Your task to perform on an android device: Search for the best rated tool bag on Lowe's. Image 0: 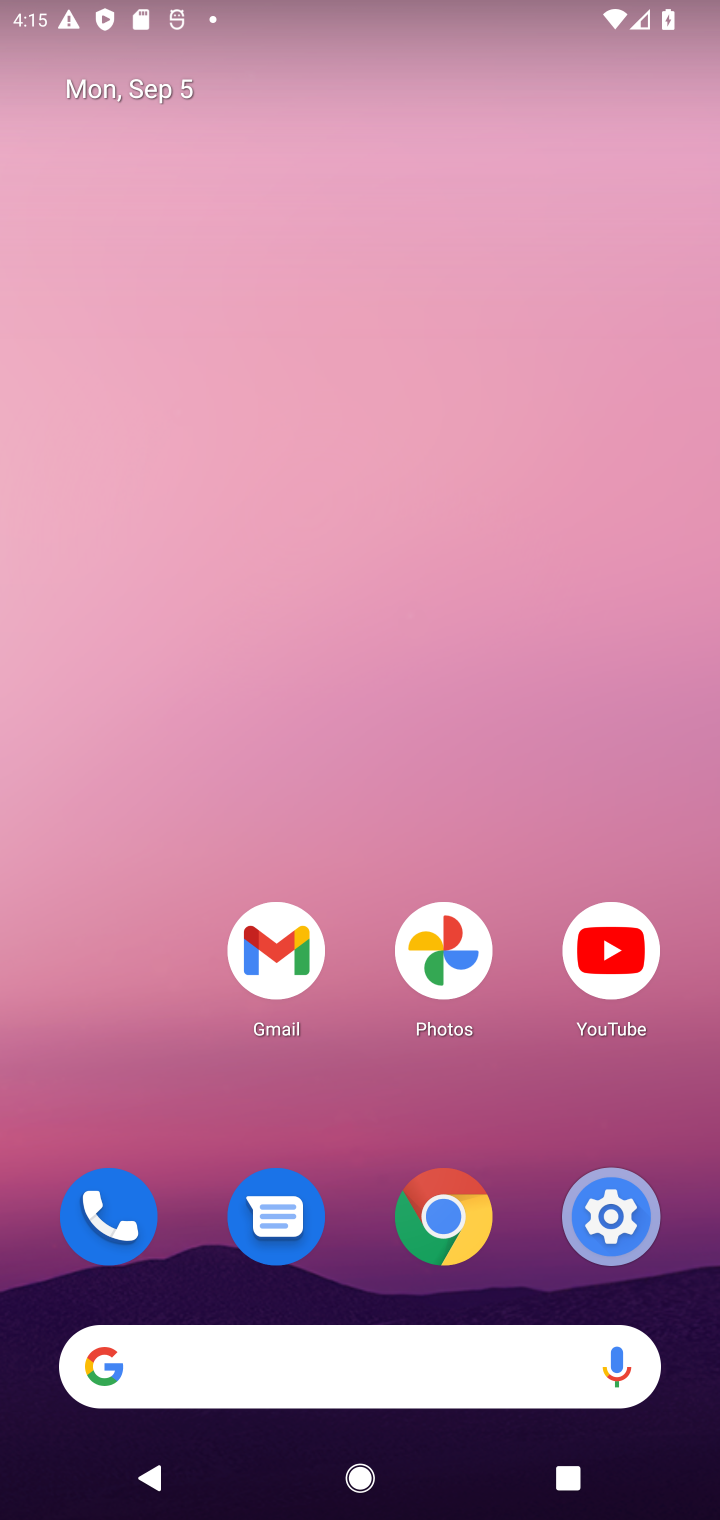
Step 0: press home button
Your task to perform on an android device: Search for the best rated tool bag on Lowe's. Image 1: 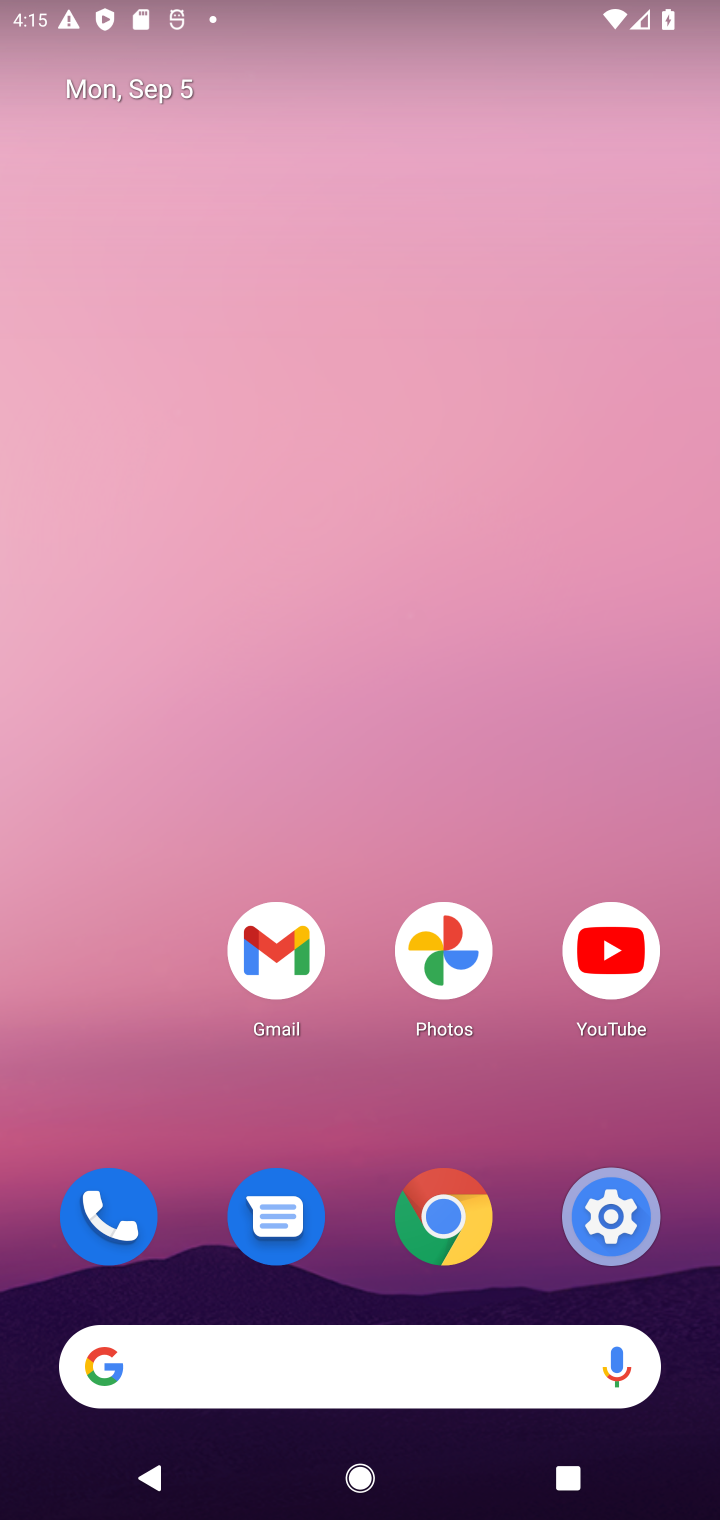
Step 1: click (107, 1379)
Your task to perform on an android device: Search for the best rated tool bag on Lowe's. Image 2: 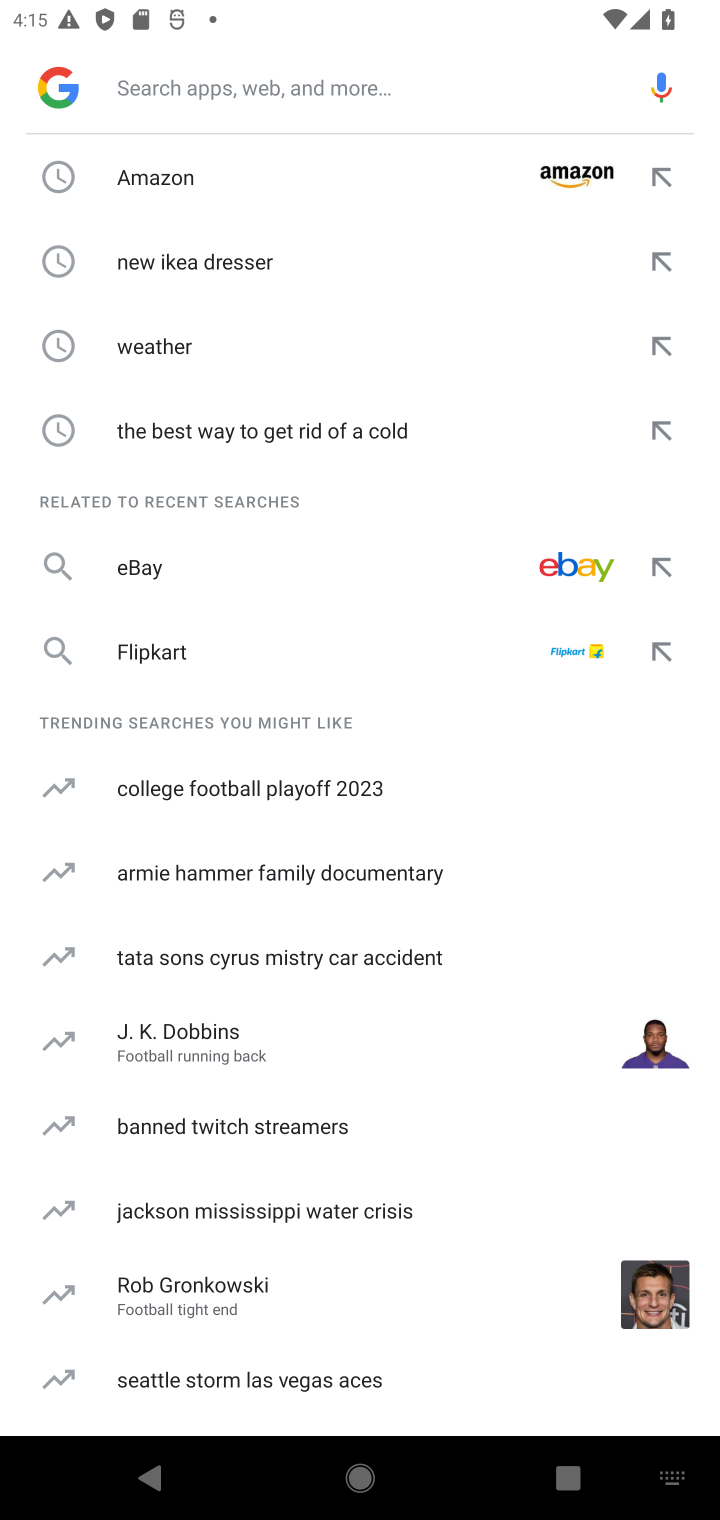
Step 2: type "Lowe's"
Your task to perform on an android device: Search for the best rated tool bag on Lowe's. Image 3: 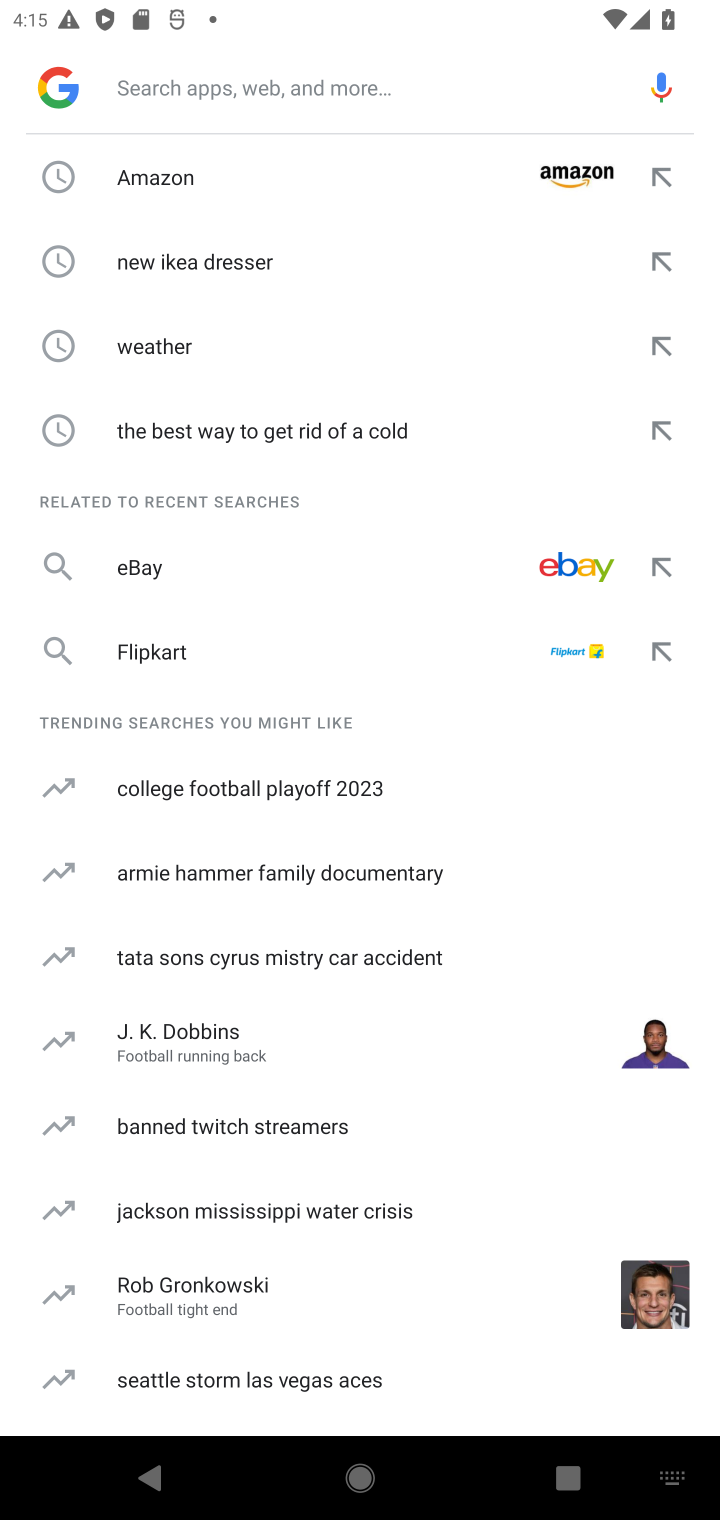
Step 3: click (171, 104)
Your task to perform on an android device: Search for the best rated tool bag on Lowe's. Image 4: 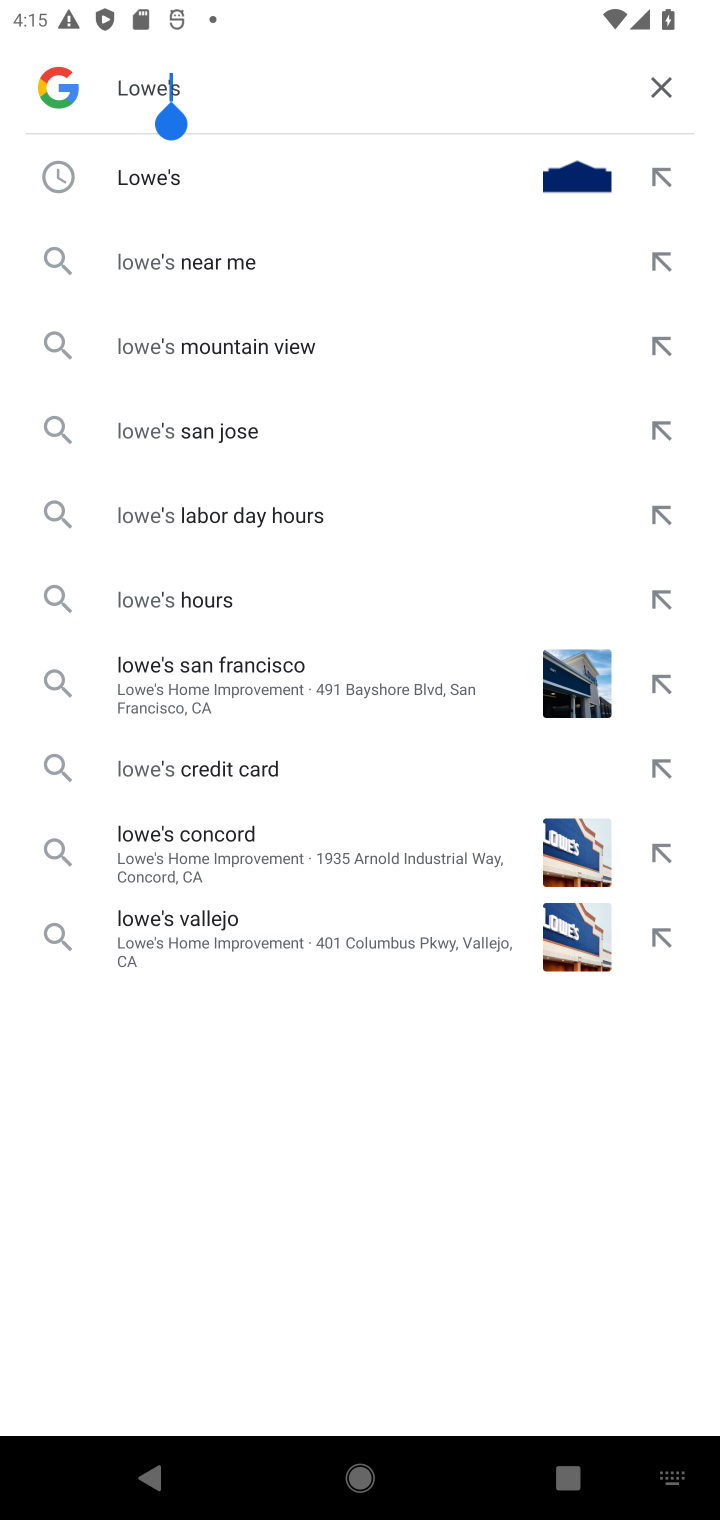
Step 4: press enter
Your task to perform on an android device: Search for the best rated tool bag on Lowe's. Image 5: 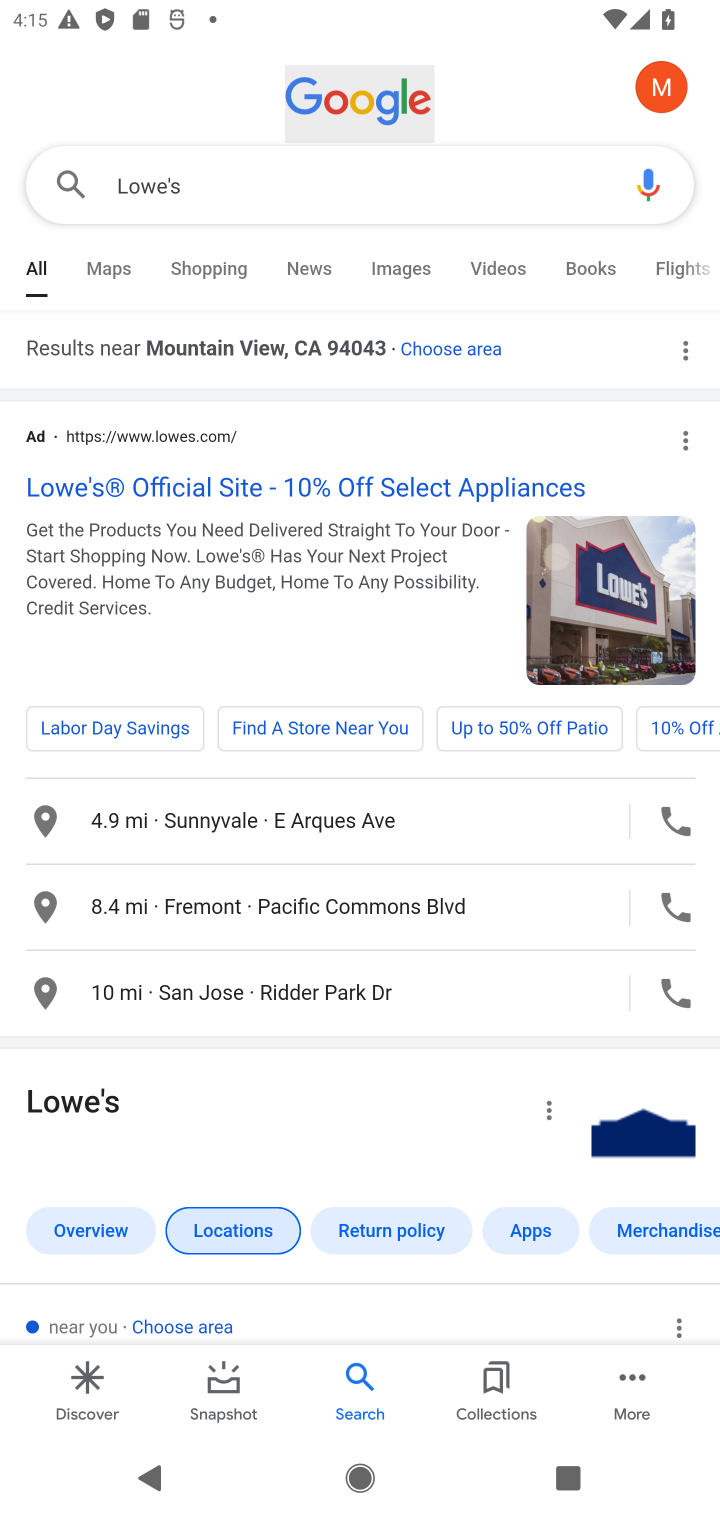
Step 5: click (136, 454)
Your task to perform on an android device: Search for the best rated tool bag on Lowe's. Image 6: 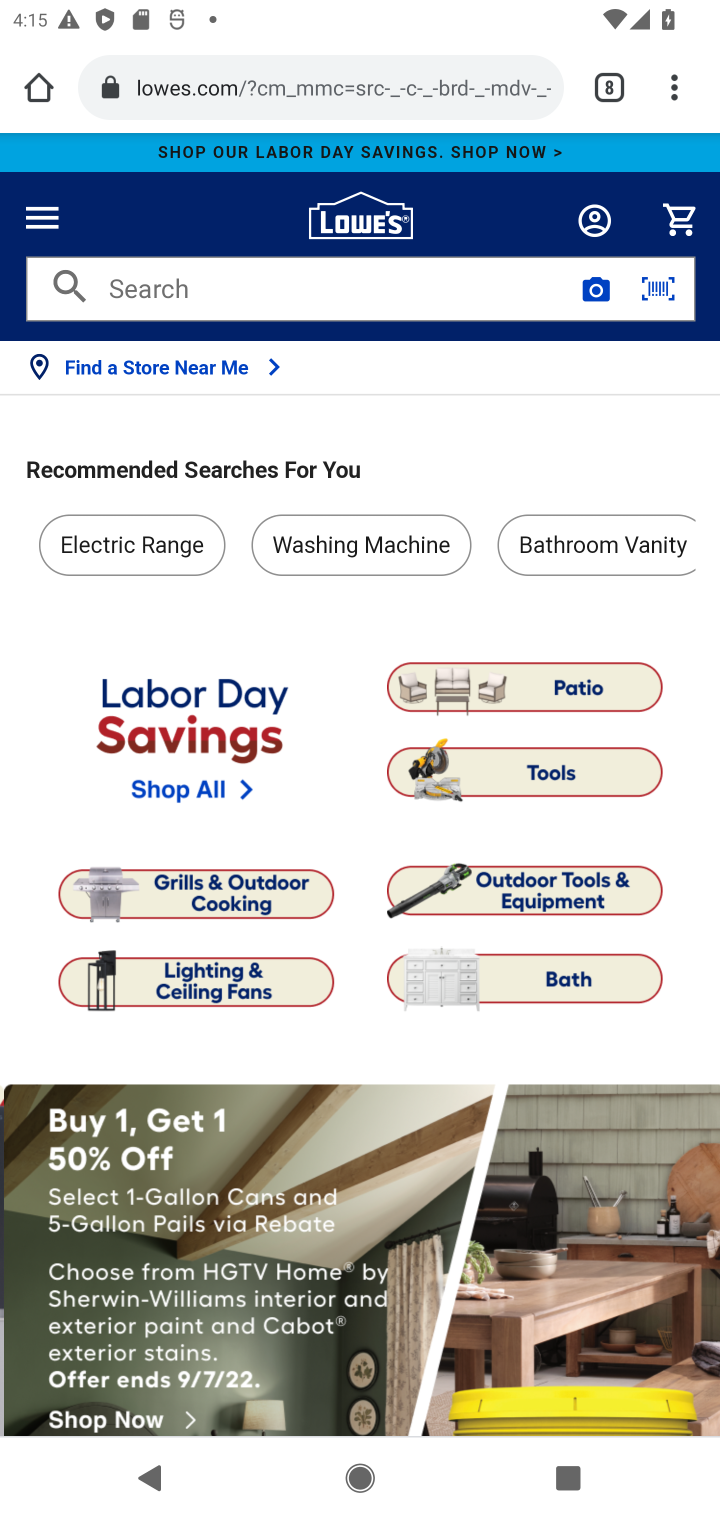
Step 6: click (242, 286)
Your task to perform on an android device: Search for the best rated tool bag on Lowe's. Image 7: 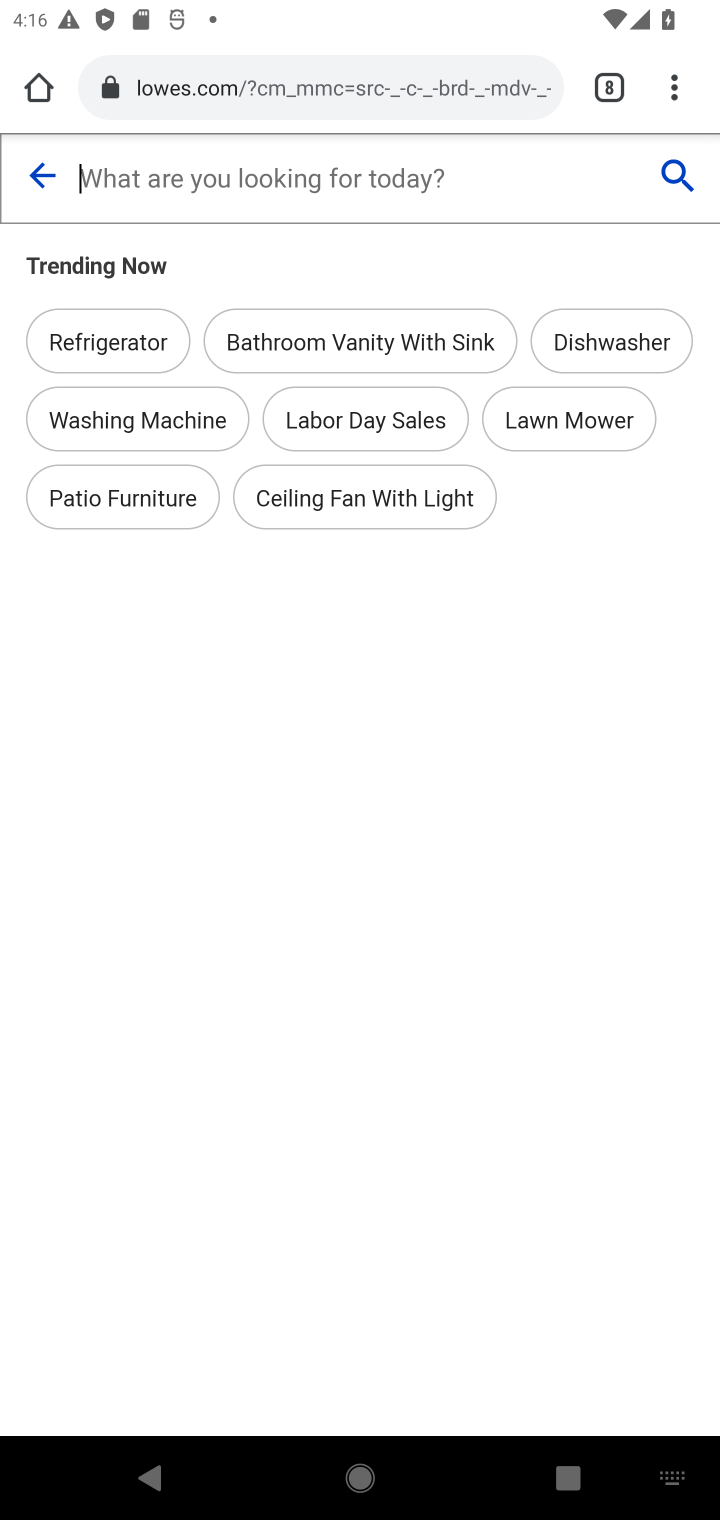
Step 7: type "tool bag"
Your task to perform on an android device: Search for the best rated tool bag on Lowe's. Image 8: 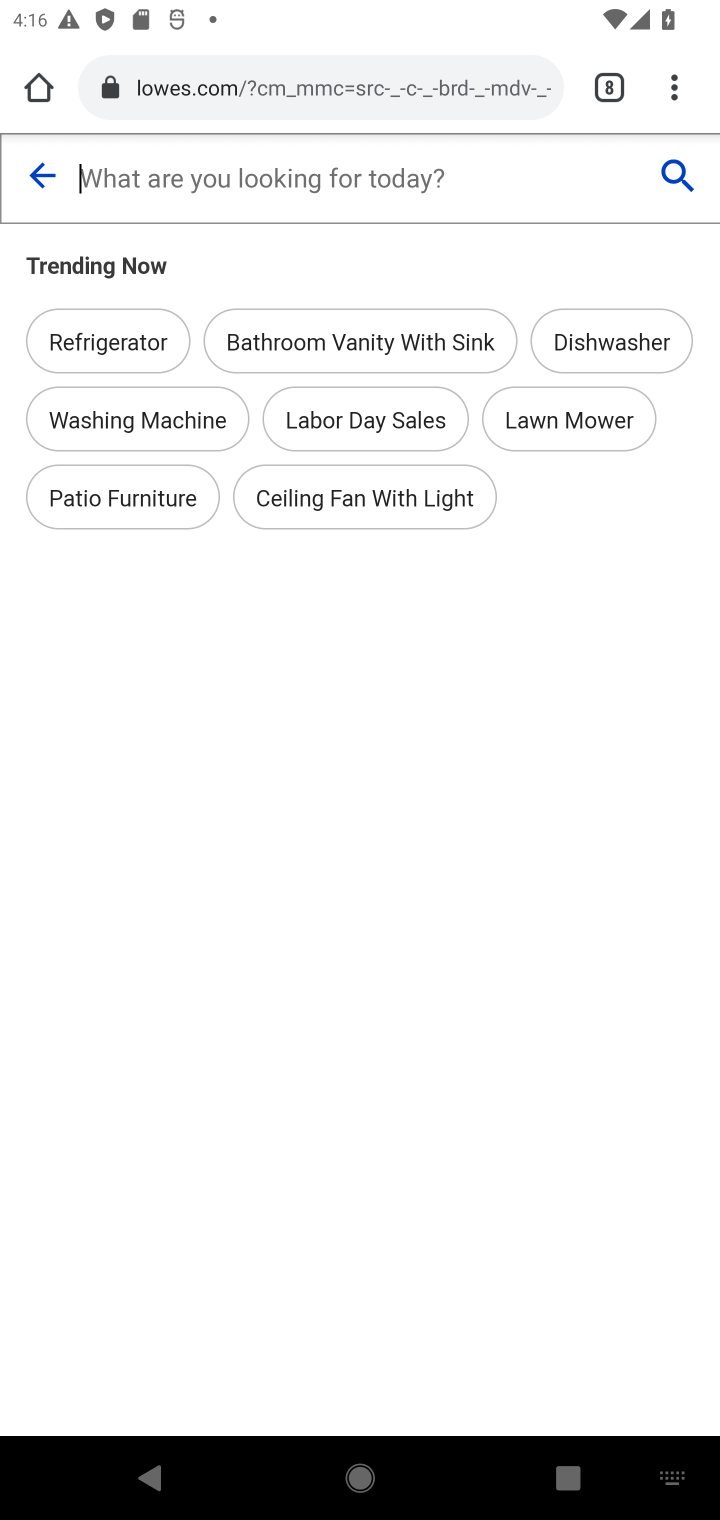
Step 8: click (232, 175)
Your task to perform on an android device: Search for the best rated tool bag on Lowe's. Image 9: 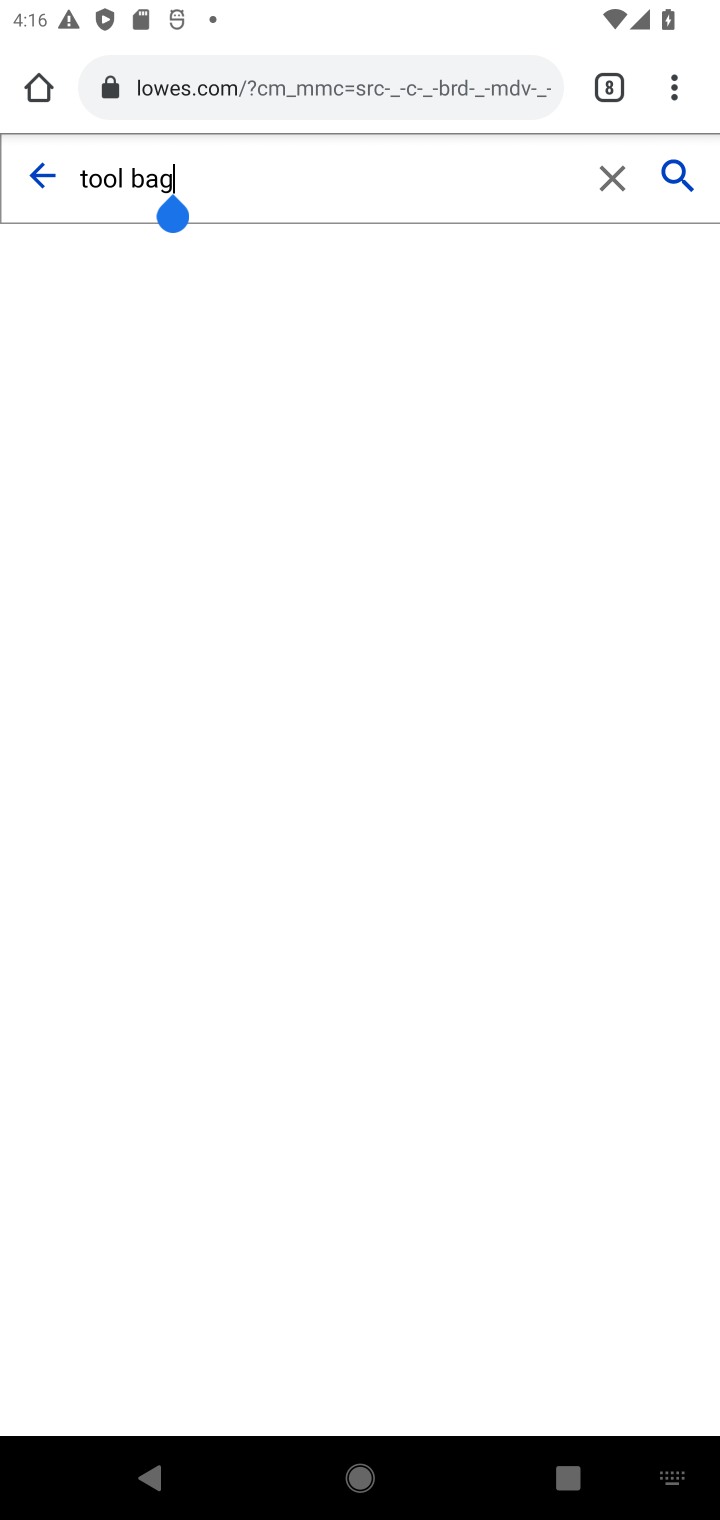
Step 9: press enter
Your task to perform on an android device: Search for the best rated tool bag on Lowe's. Image 10: 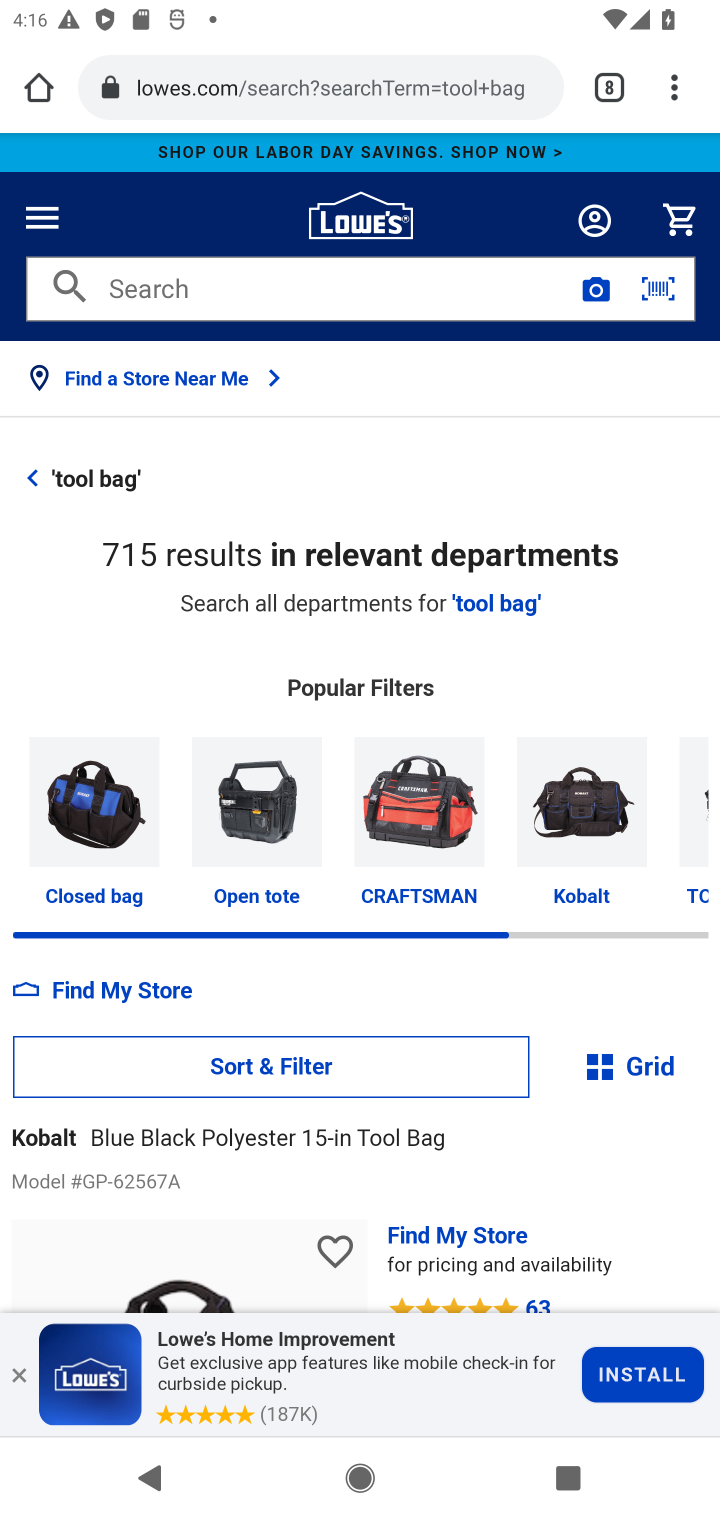
Step 10: click (308, 1059)
Your task to perform on an android device: Search for the best rated tool bag on Lowe's. Image 11: 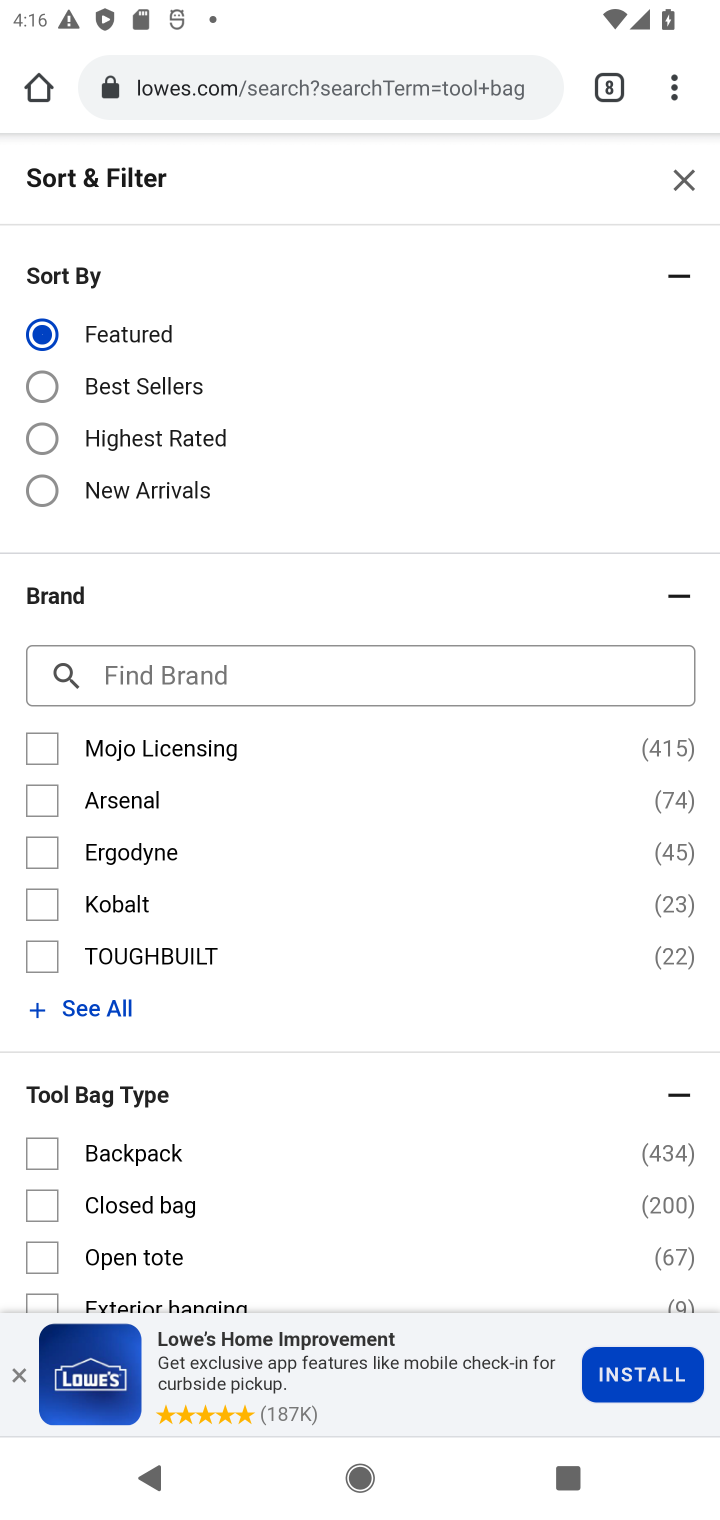
Step 11: drag from (307, 596) to (241, 61)
Your task to perform on an android device: Search for the best rated tool bag on Lowe's. Image 12: 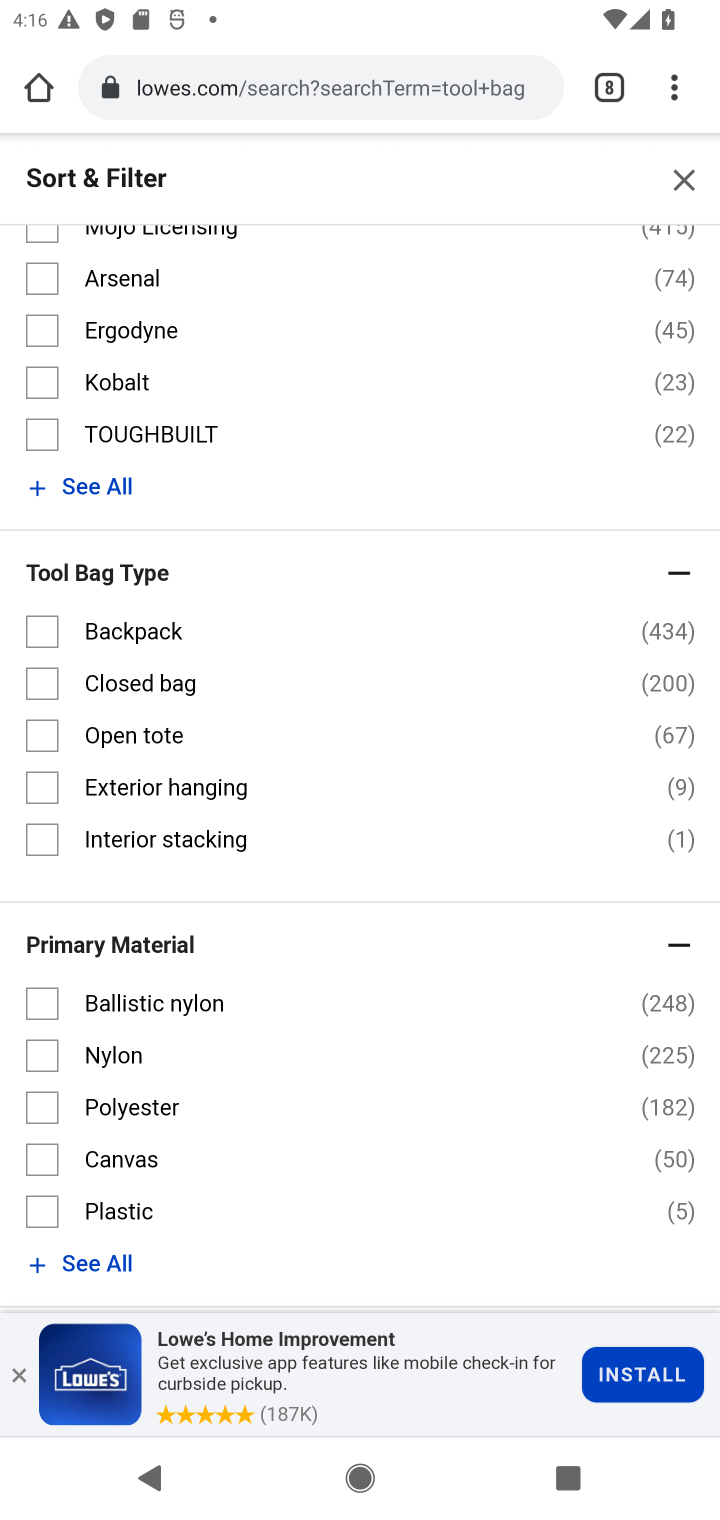
Step 12: drag from (405, 950) to (298, 79)
Your task to perform on an android device: Search for the best rated tool bag on Lowe's. Image 13: 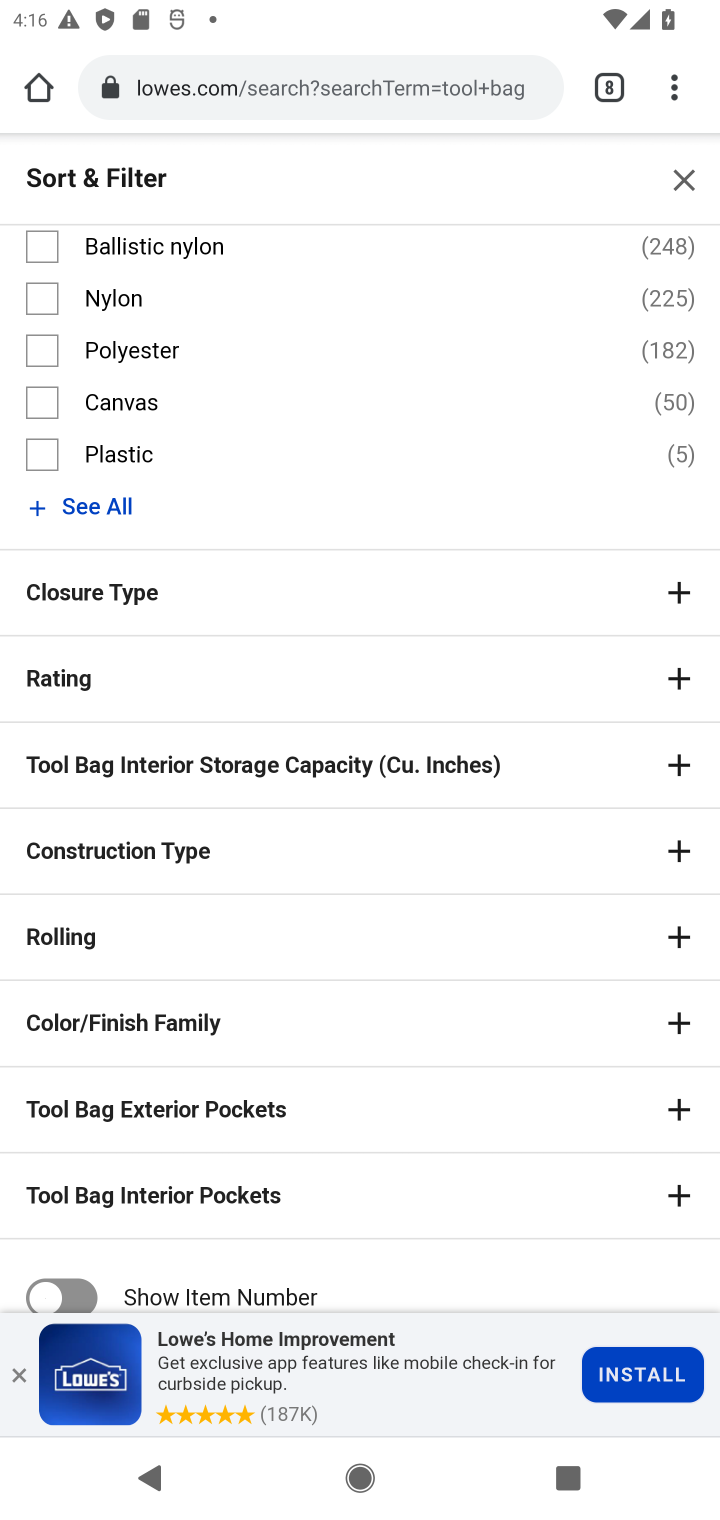
Step 13: drag from (219, 613) to (167, 11)
Your task to perform on an android device: Search for the best rated tool bag on Lowe's. Image 14: 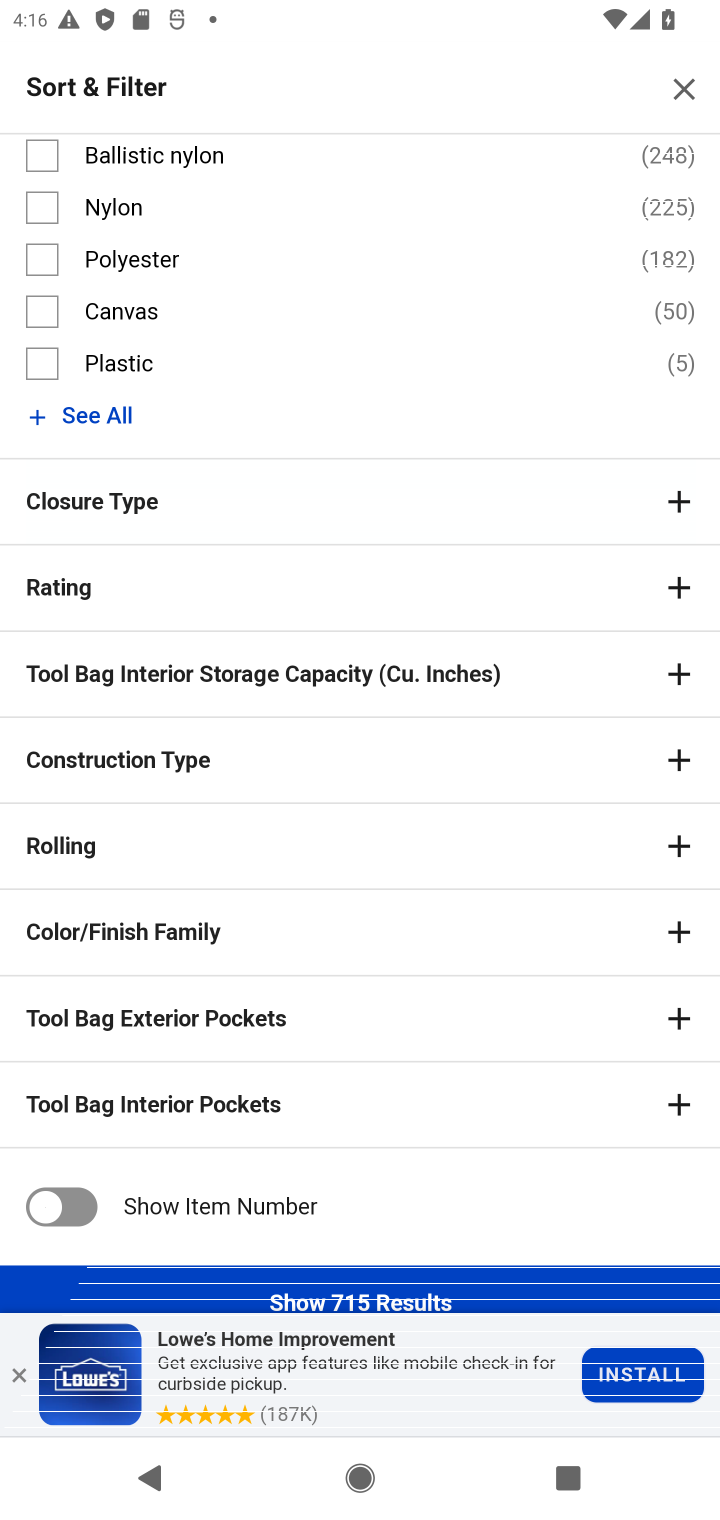
Step 14: drag from (471, 1202) to (416, 293)
Your task to perform on an android device: Search for the best rated tool bag on Lowe's. Image 15: 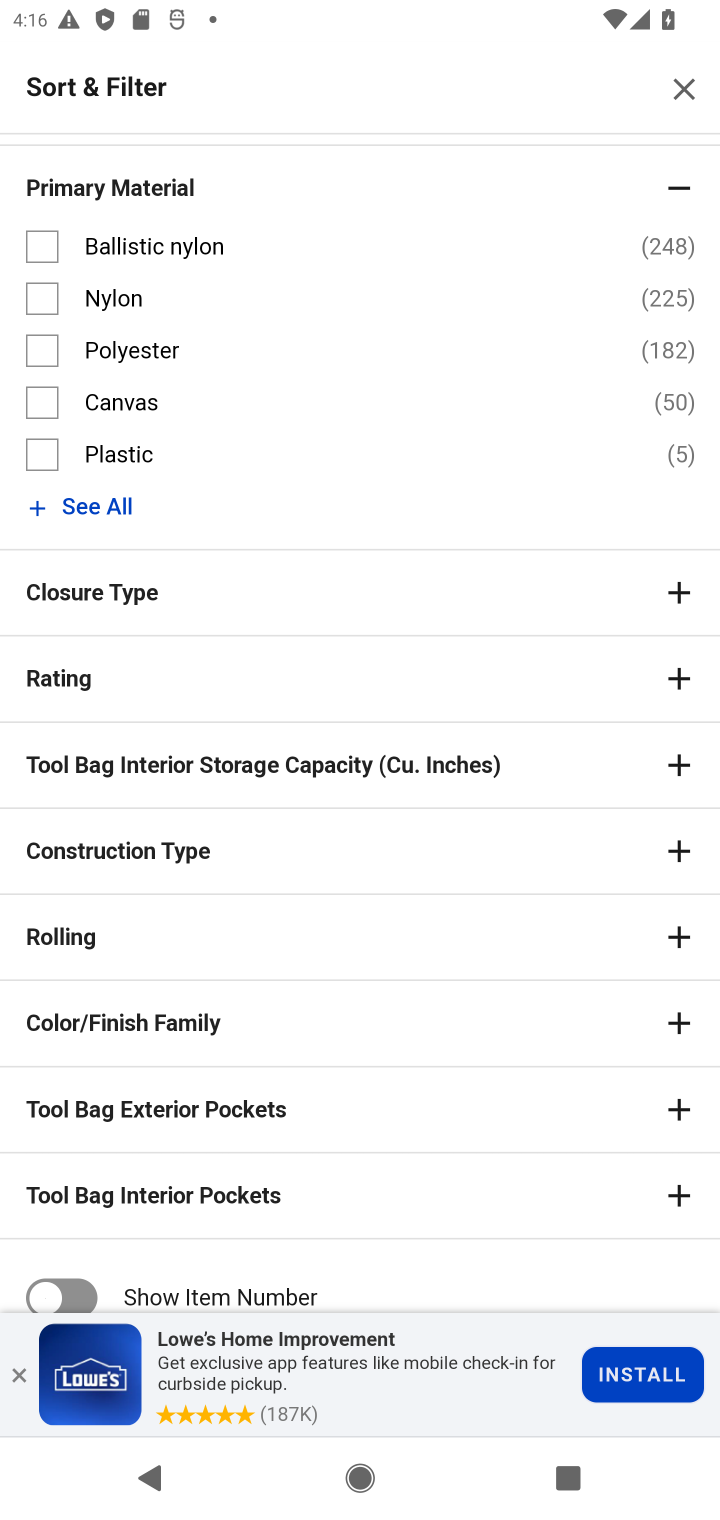
Step 15: drag from (260, 522) to (306, 0)
Your task to perform on an android device: Search for the best rated tool bag on Lowe's. Image 16: 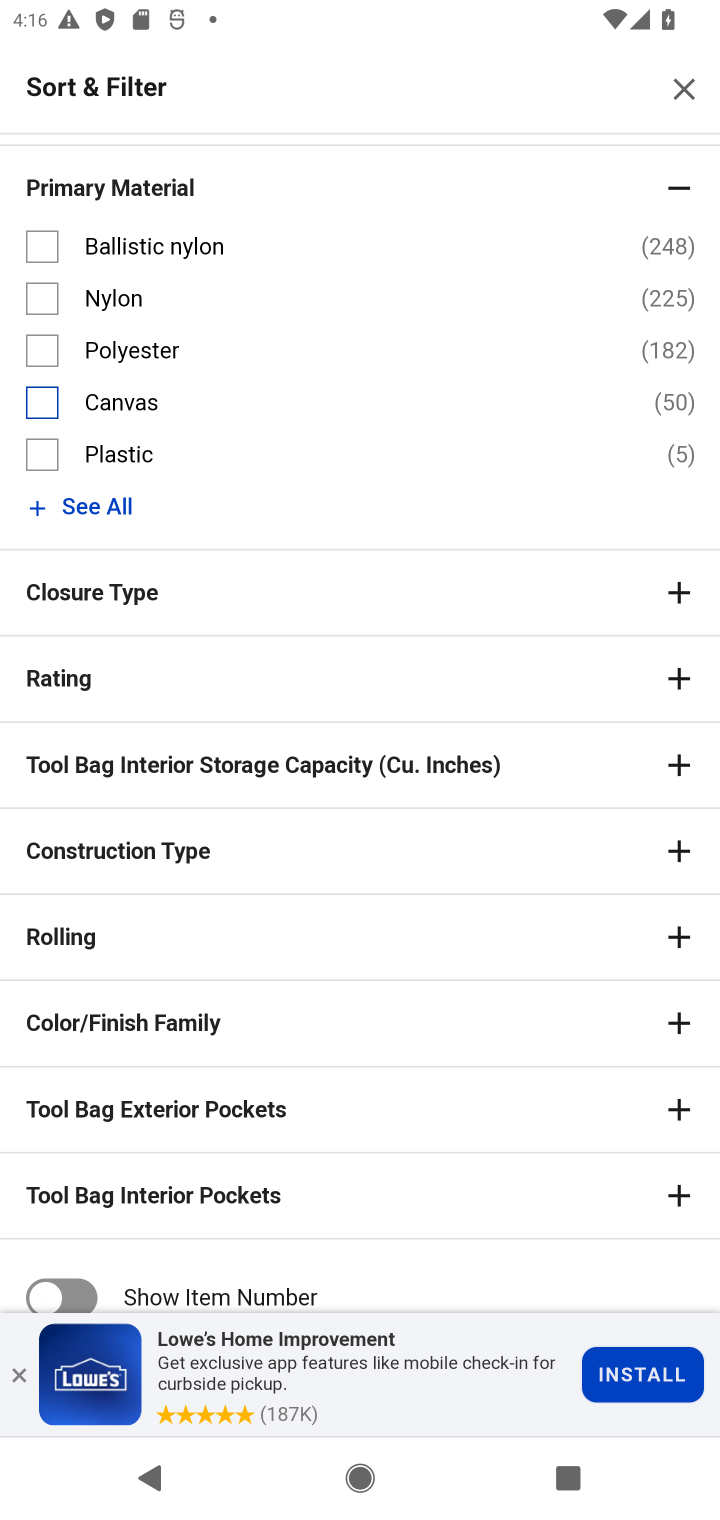
Step 16: drag from (559, 1260) to (503, 60)
Your task to perform on an android device: Search for the best rated tool bag on Lowe's. Image 17: 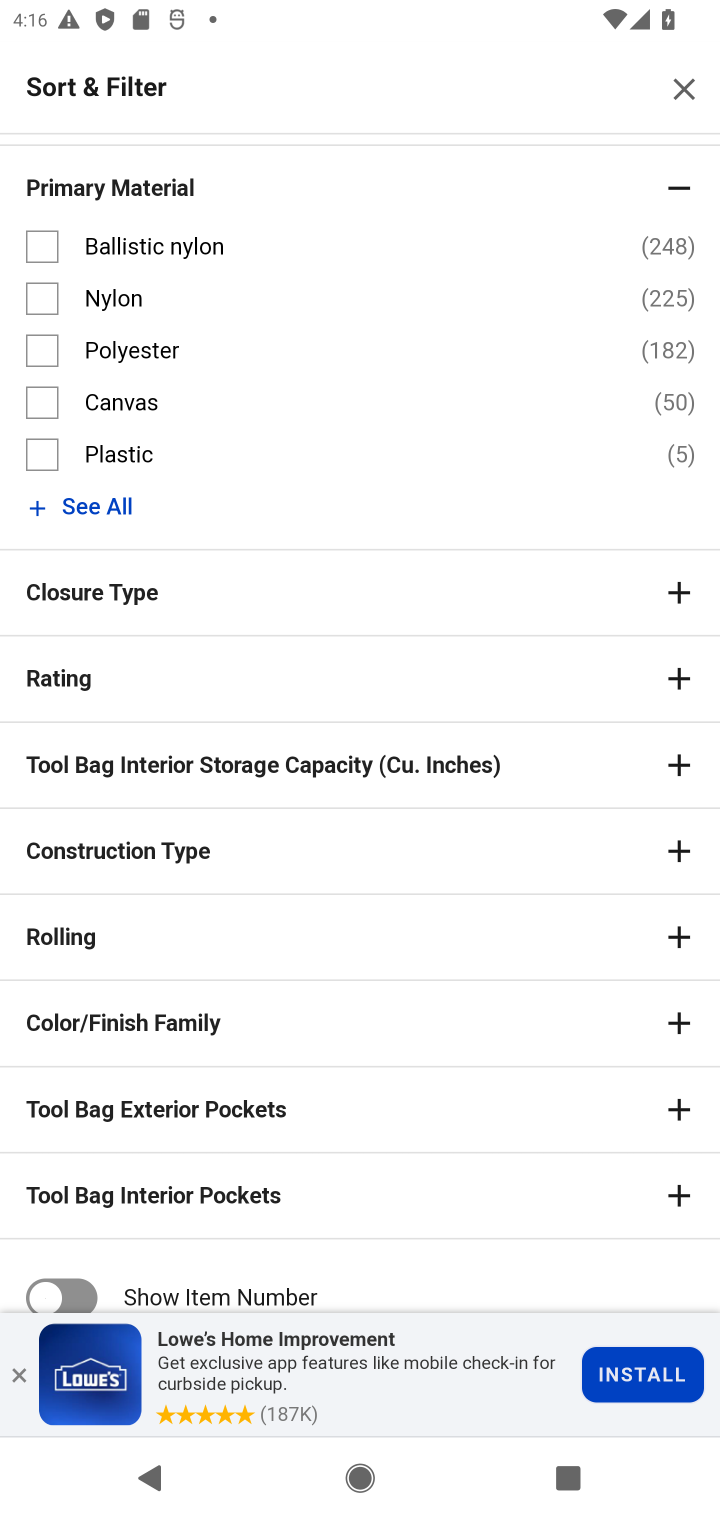
Step 17: drag from (356, 575) to (339, 168)
Your task to perform on an android device: Search for the best rated tool bag on Lowe's. Image 18: 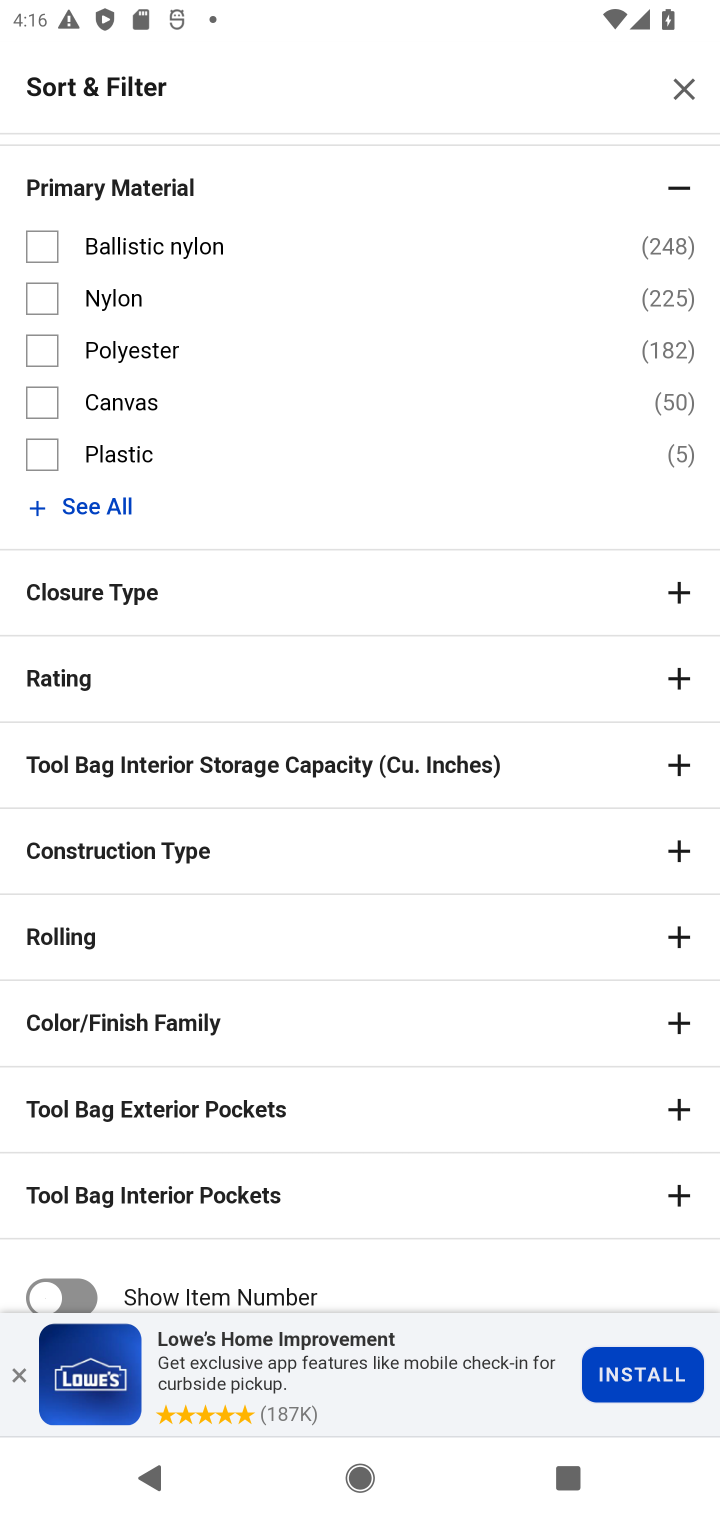
Step 18: drag from (358, 839) to (451, 13)
Your task to perform on an android device: Search for the best rated tool bag on Lowe's. Image 19: 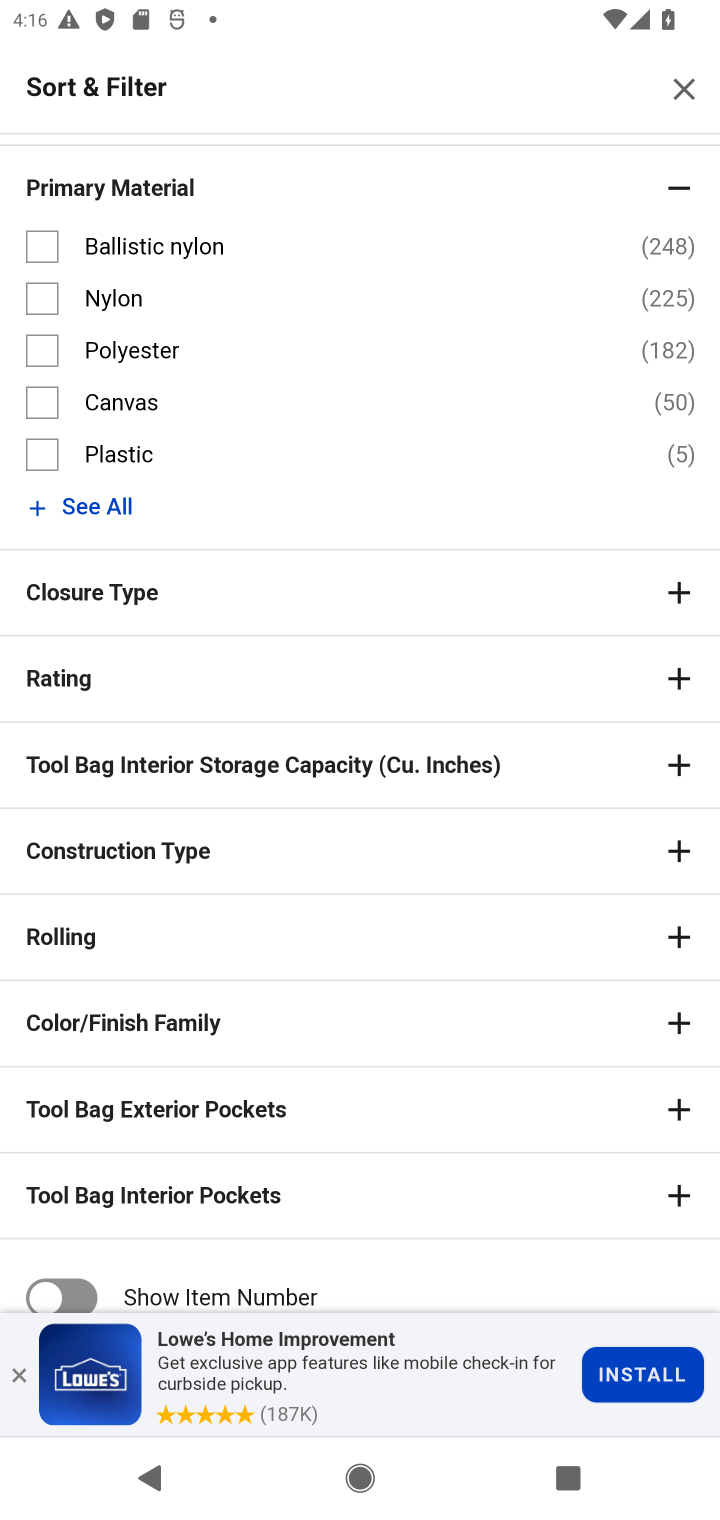
Step 19: click (75, 677)
Your task to perform on an android device: Search for the best rated tool bag on Lowe's. Image 20: 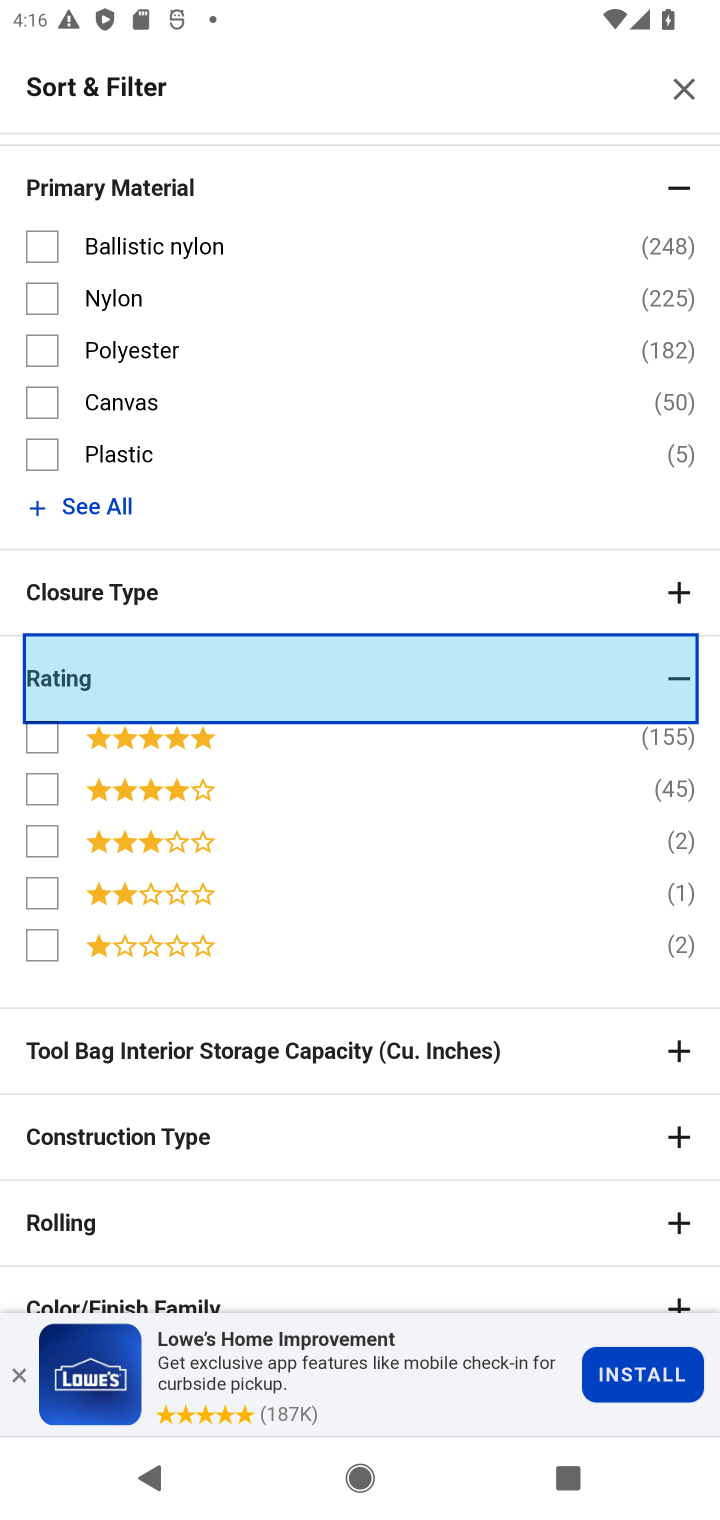
Step 20: click (41, 737)
Your task to perform on an android device: Search for the best rated tool bag on Lowe's. Image 21: 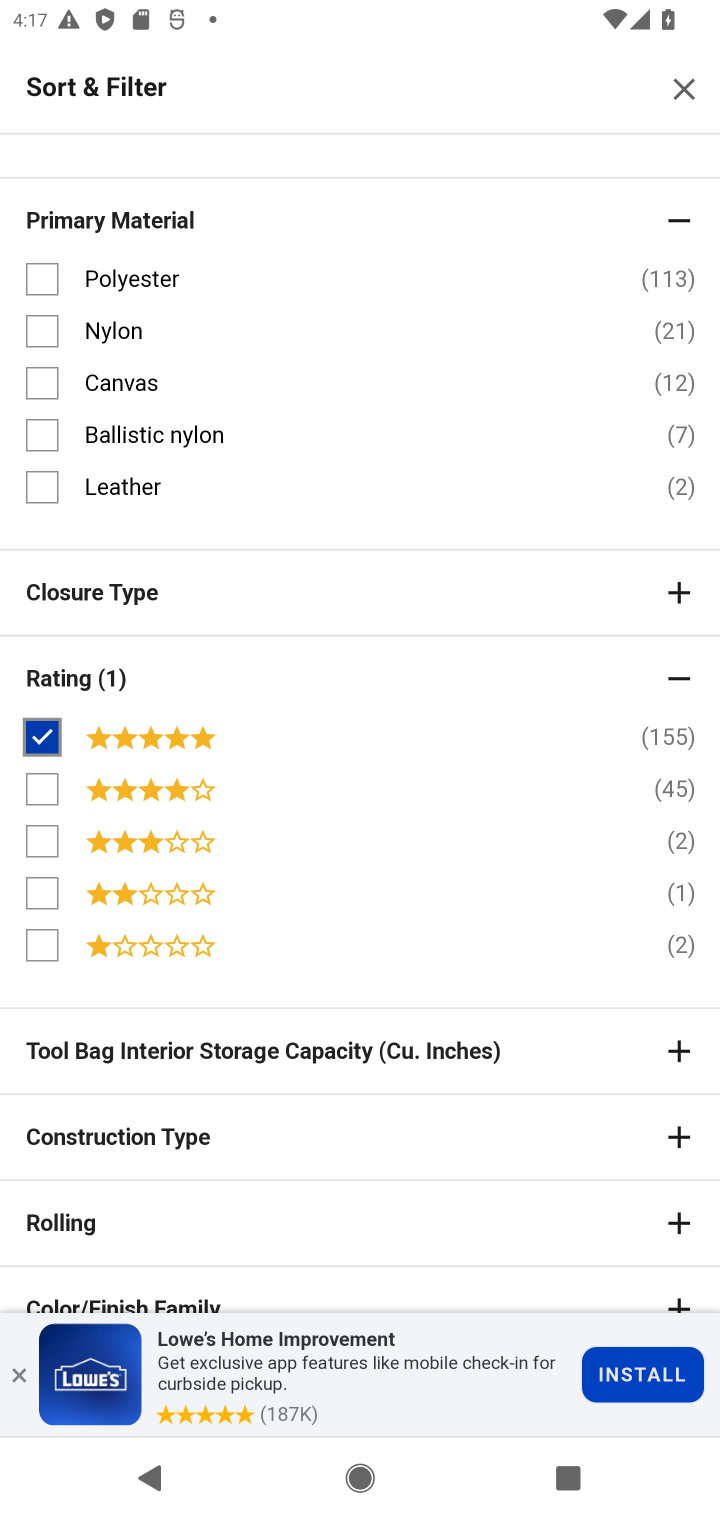
Step 21: drag from (288, 621) to (342, 122)
Your task to perform on an android device: Search for the best rated tool bag on Lowe's. Image 22: 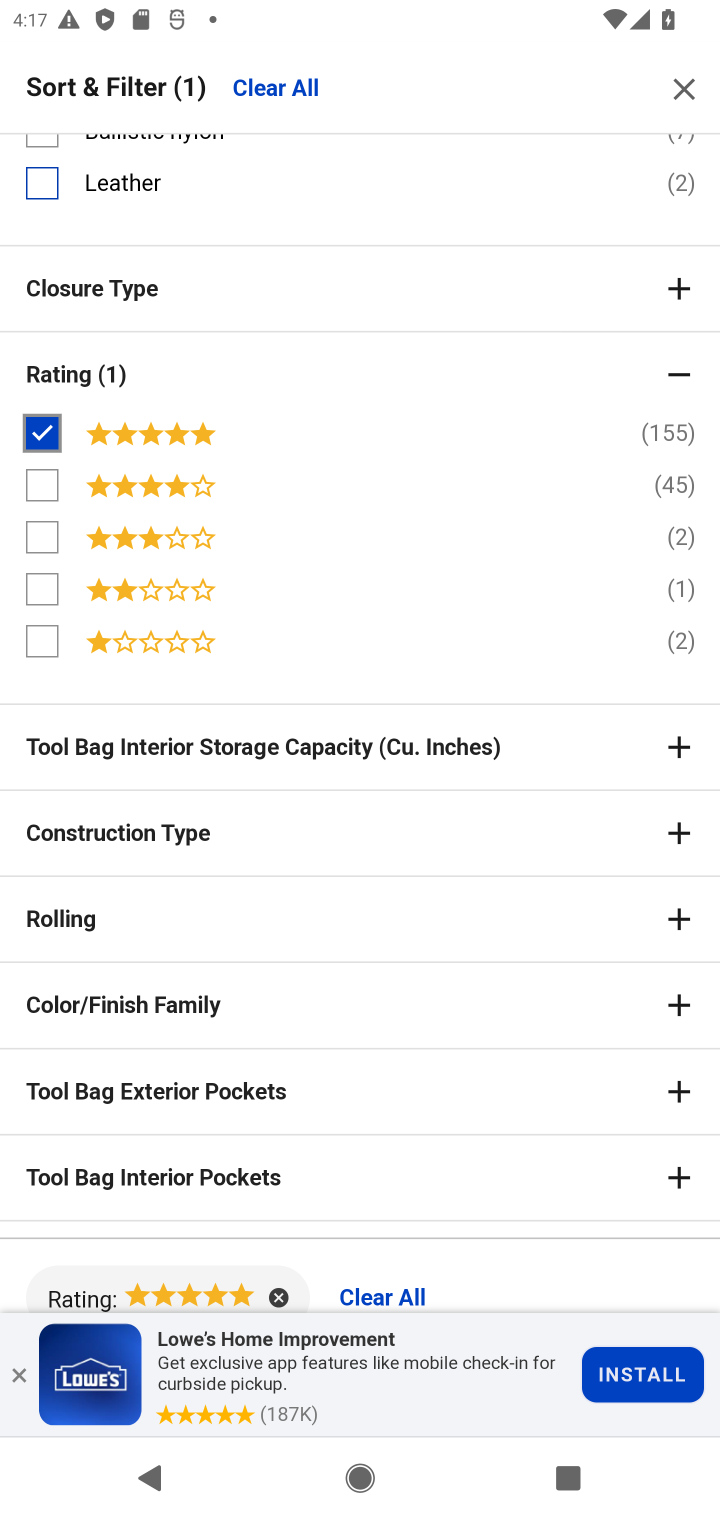
Step 22: click (14, 1379)
Your task to perform on an android device: Search for the best rated tool bag on Lowe's. Image 23: 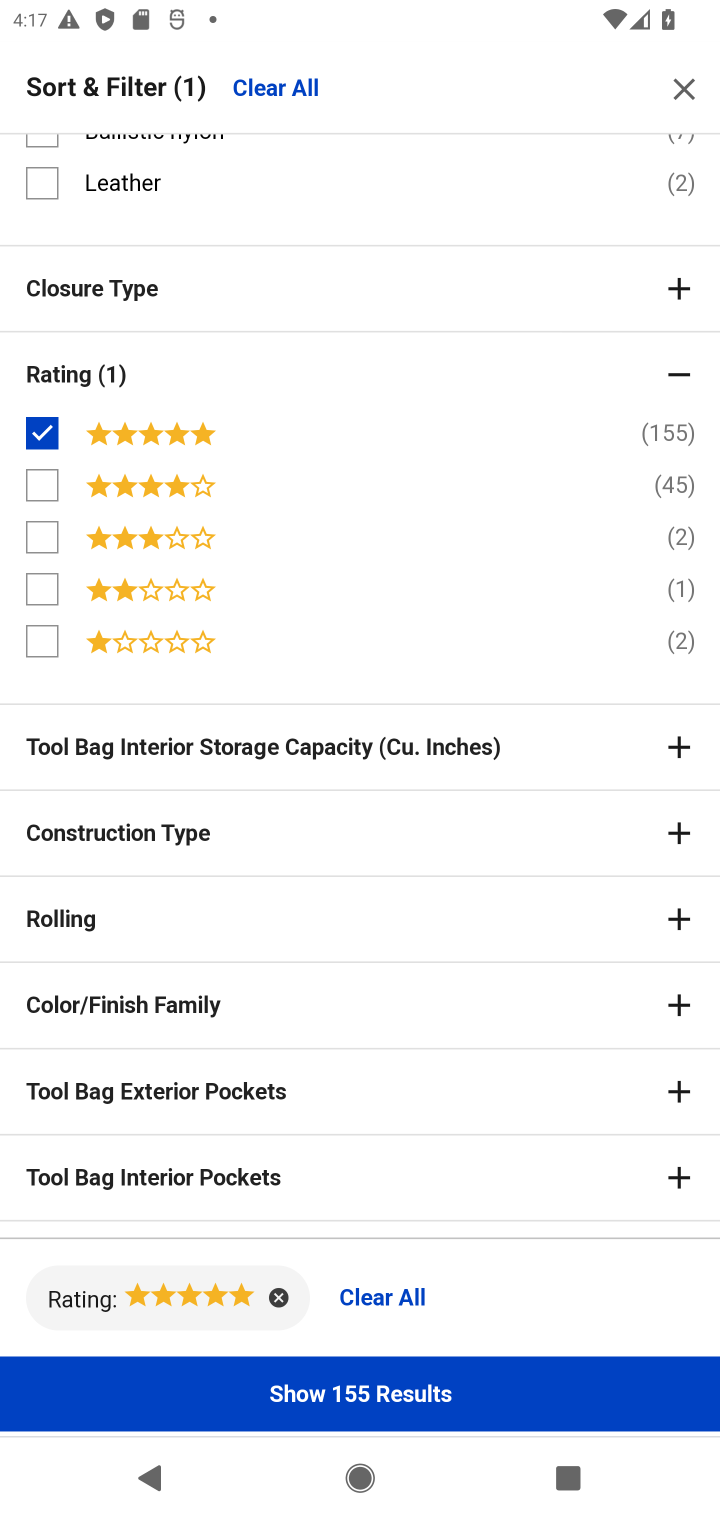
Step 23: click (341, 1408)
Your task to perform on an android device: Search for the best rated tool bag on Lowe's. Image 24: 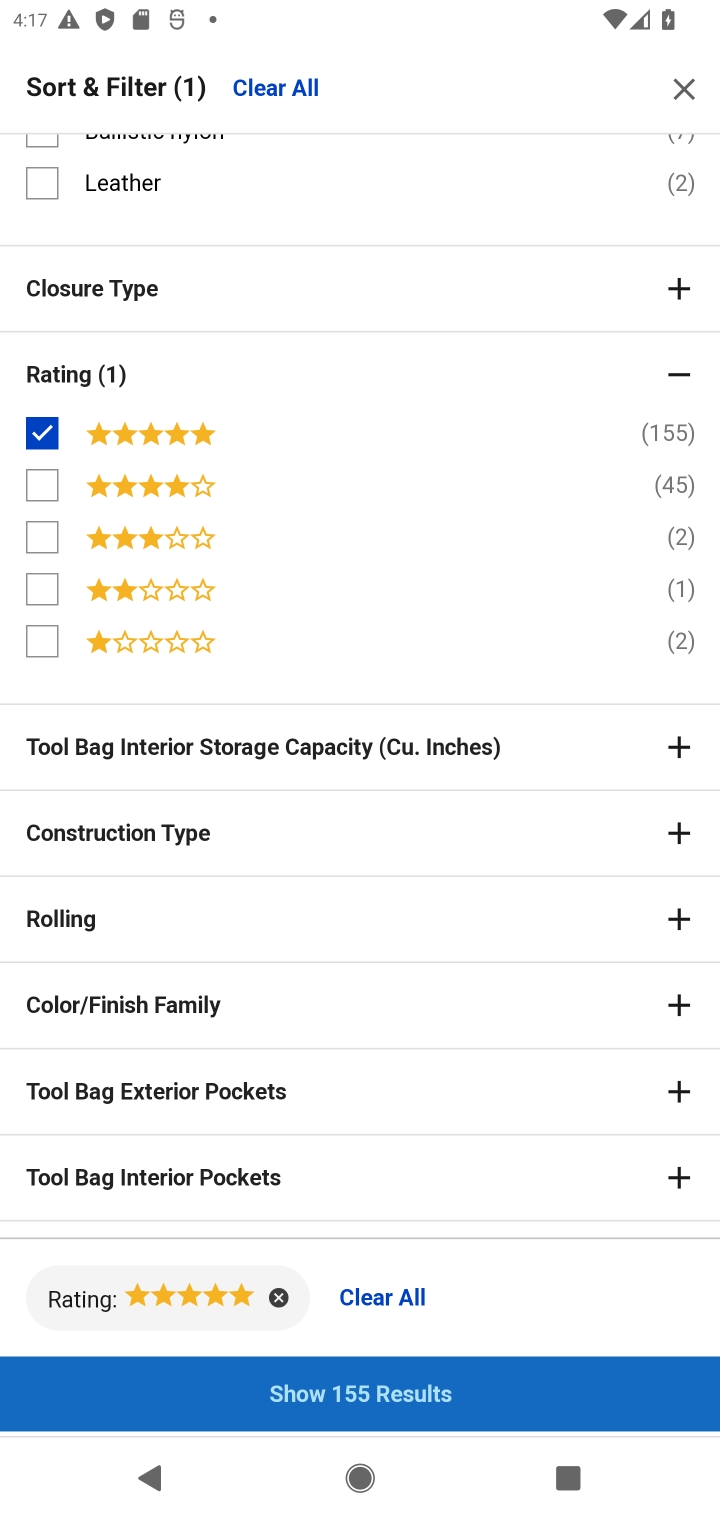
Step 24: click (419, 1380)
Your task to perform on an android device: Search for the best rated tool bag on Lowe's. Image 25: 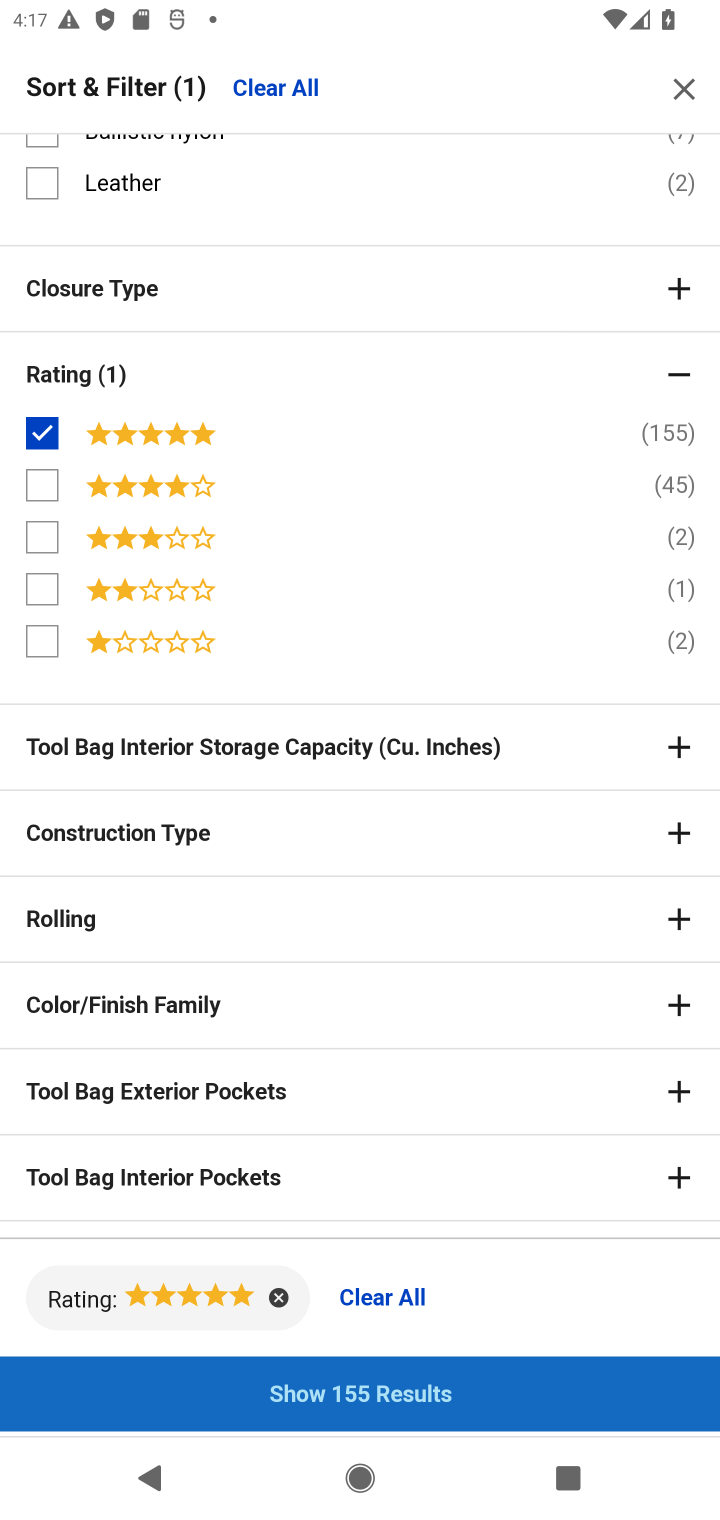
Step 25: task complete